Your task to perform on an android device: check storage Image 0: 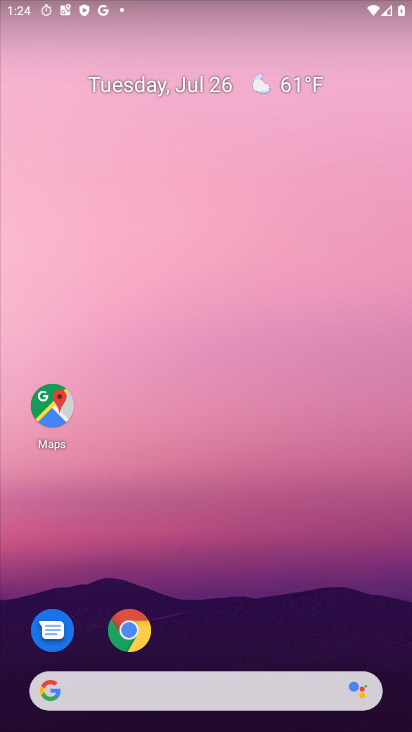
Step 0: drag from (263, 573) to (277, 113)
Your task to perform on an android device: check storage Image 1: 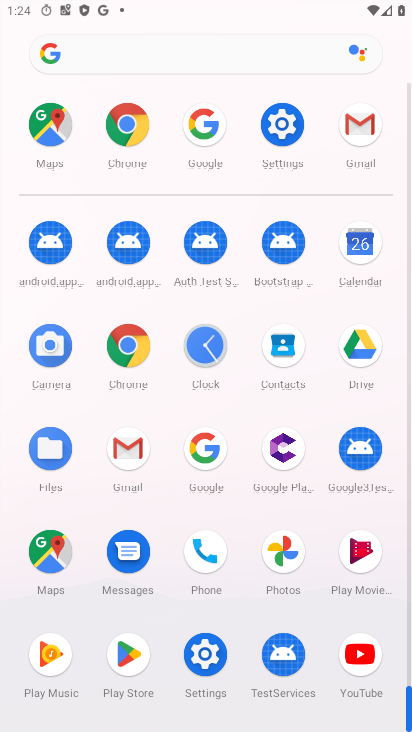
Step 1: click (285, 140)
Your task to perform on an android device: check storage Image 2: 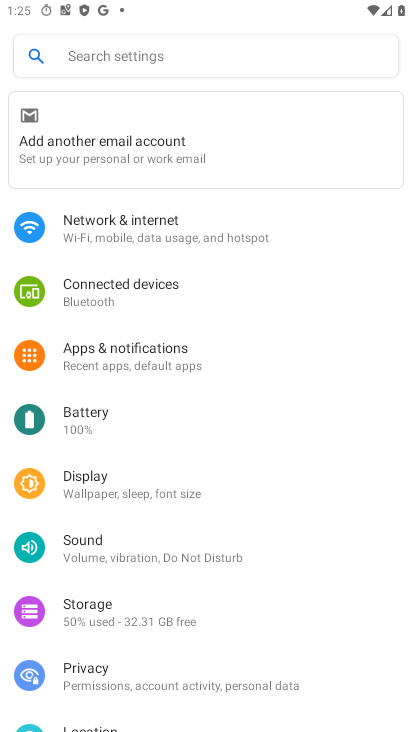
Step 2: click (113, 609)
Your task to perform on an android device: check storage Image 3: 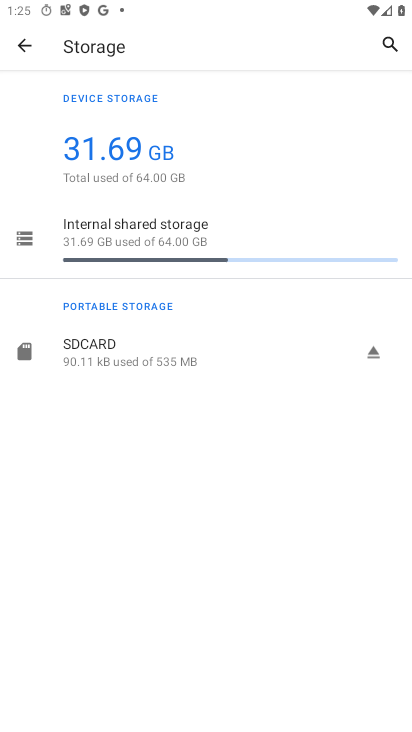
Step 3: click (133, 249)
Your task to perform on an android device: check storage Image 4: 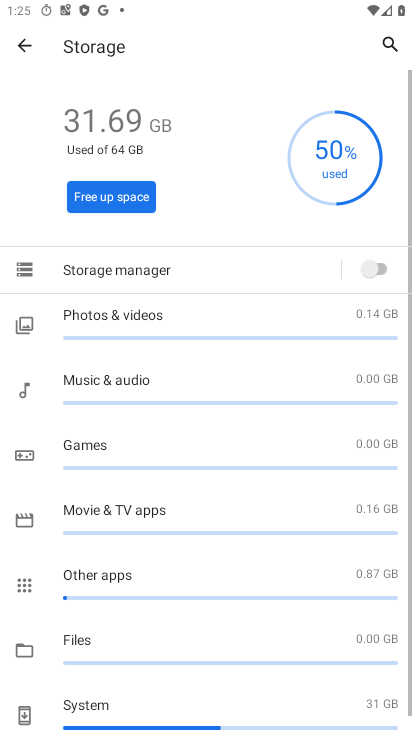
Step 4: task complete